Your task to perform on an android device: check android version Image 0: 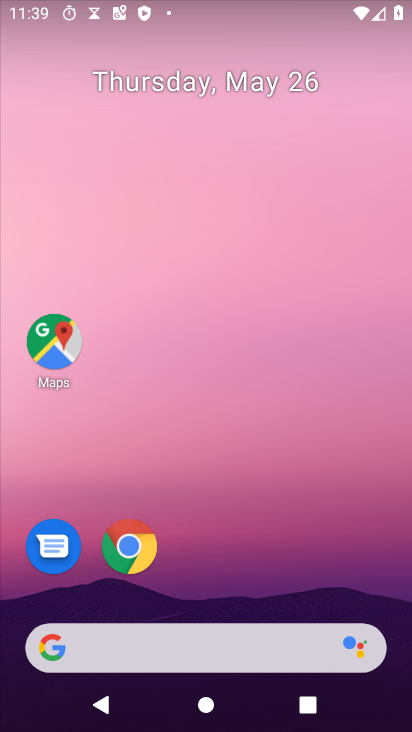
Step 0: press home button
Your task to perform on an android device: check android version Image 1: 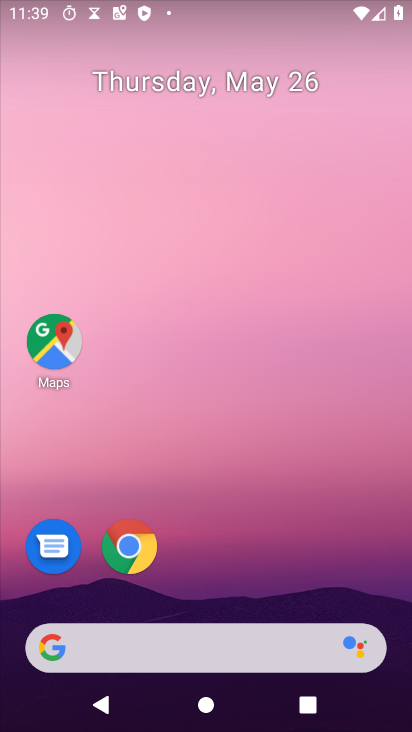
Step 1: drag from (364, 581) to (356, 79)
Your task to perform on an android device: check android version Image 2: 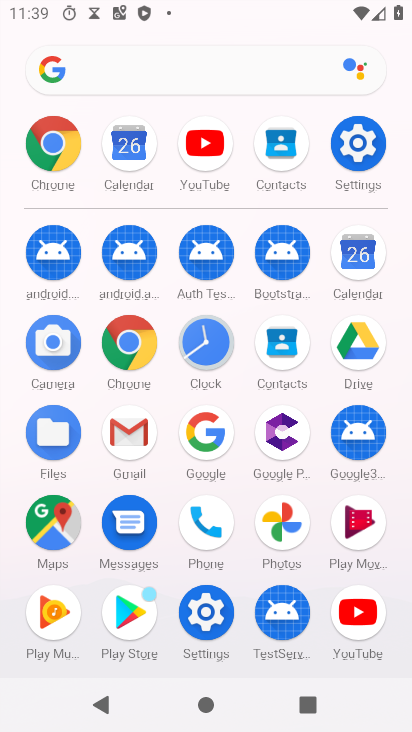
Step 2: click (211, 624)
Your task to perform on an android device: check android version Image 3: 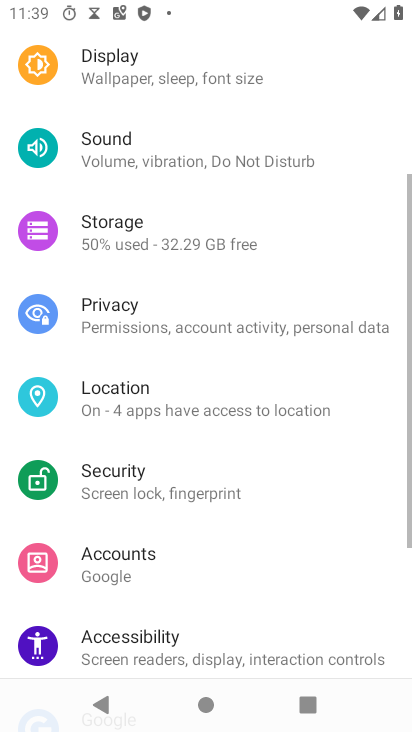
Step 3: drag from (280, 599) to (266, 257)
Your task to perform on an android device: check android version Image 4: 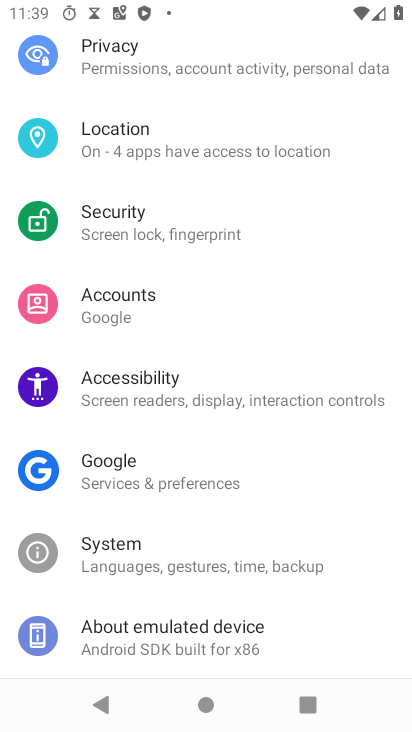
Step 4: drag from (291, 633) to (352, 334)
Your task to perform on an android device: check android version Image 5: 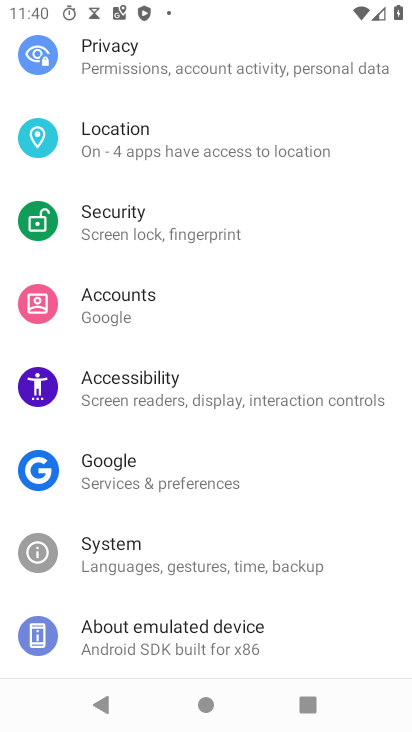
Step 5: click (249, 625)
Your task to perform on an android device: check android version Image 6: 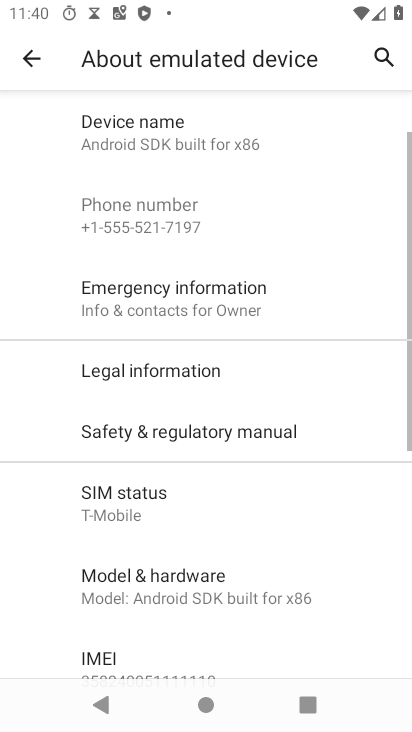
Step 6: drag from (250, 624) to (283, 267)
Your task to perform on an android device: check android version Image 7: 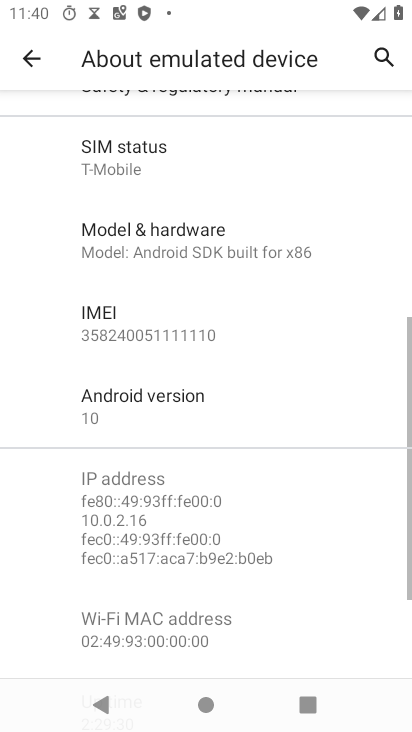
Step 7: drag from (270, 586) to (317, 226)
Your task to perform on an android device: check android version Image 8: 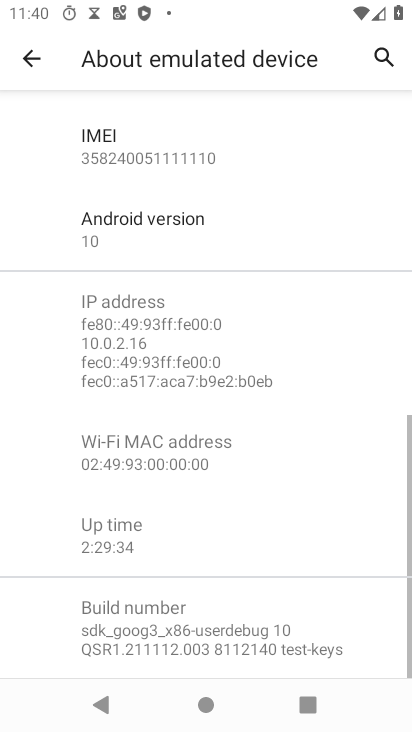
Step 8: click (198, 237)
Your task to perform on an android device: check android version Image 9: 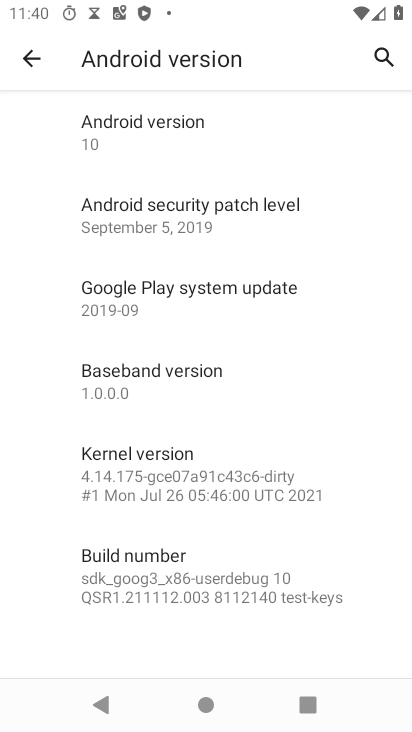
Step 9: task complete